Your task to perform on an android device: Open my contact list Image 0: 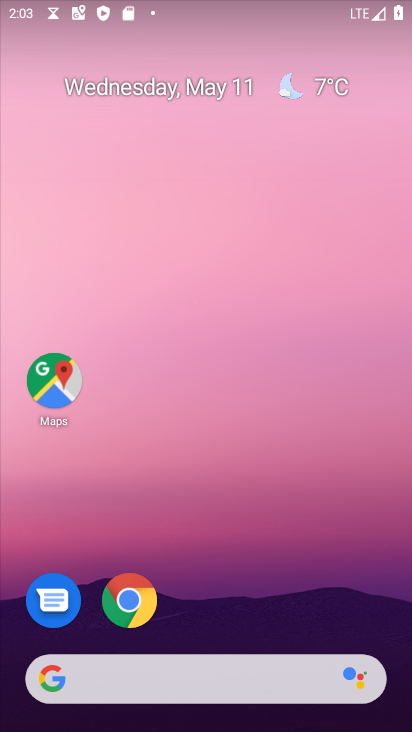
Step 0: drag from (282, 576) to (233, 43)
Your task to perform on an android device: Open my contact list Image 1: 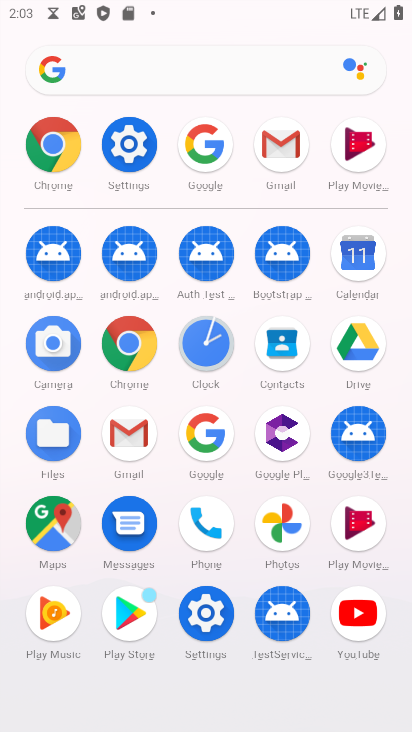
Step 1: click (284, 345)
Your task to perform on an android device: Open my contact list Image 2: 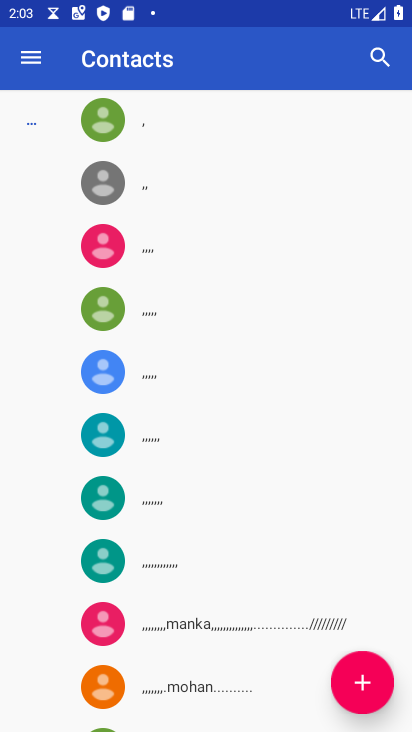
Step 2: task complete